Your task to perform on an android device: read, delete, or share a saved page in the chrome app Image 0: 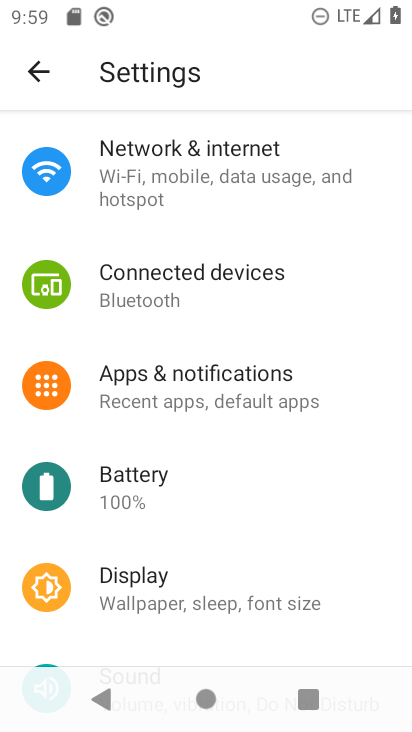
Step 0: press home button
Your task to perform on an android device: read, delete, or share a saved page in the chrome app Image 1: 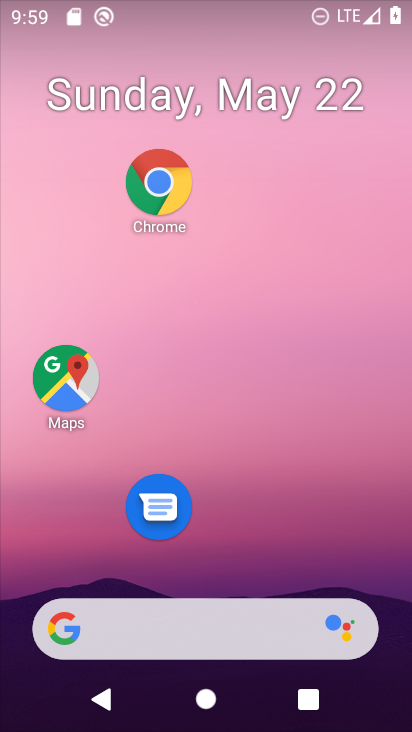
Step 1: click (139, 204)
Your task to perform on an android device: read, delete, or share a saved page in the chrome app Image 2: 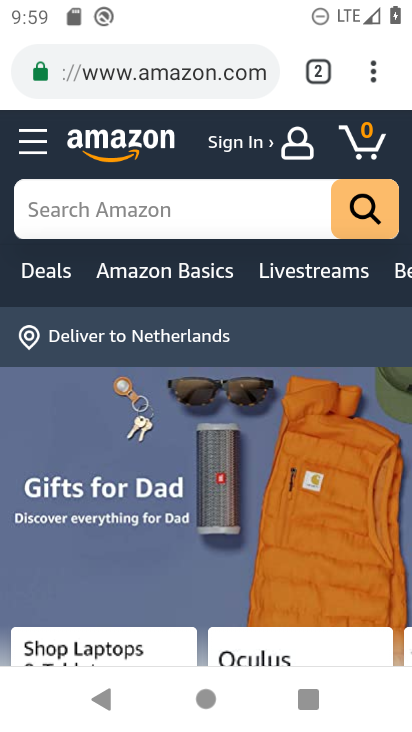
Step 2: click (380, 71)
Your task to perform on an android device: read, delete, or share a saved page in the chrome app Image 3: 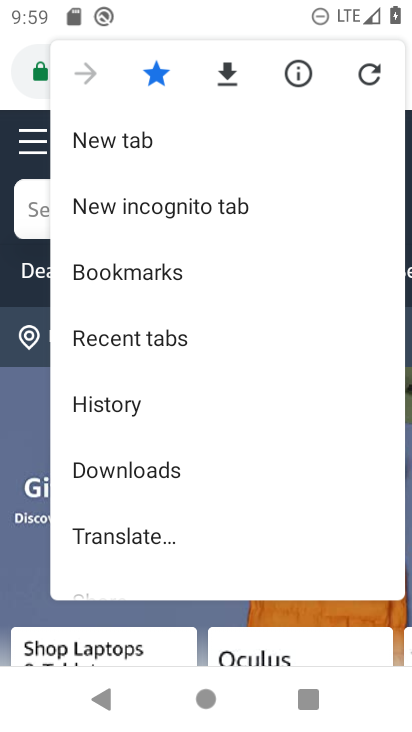
Step 3: click (159, 471)
Your task to perform on an android device: read, delete, or share a saved page in the chrome app Image 4: 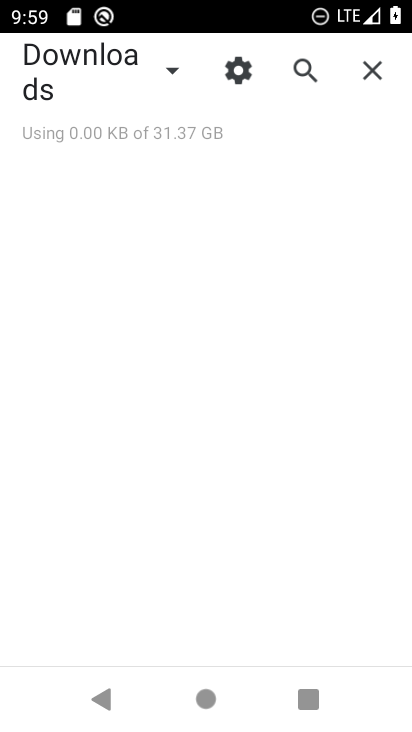
Step 4: task complete